Your task to perform on an android device: What is the recent news? Image 0: 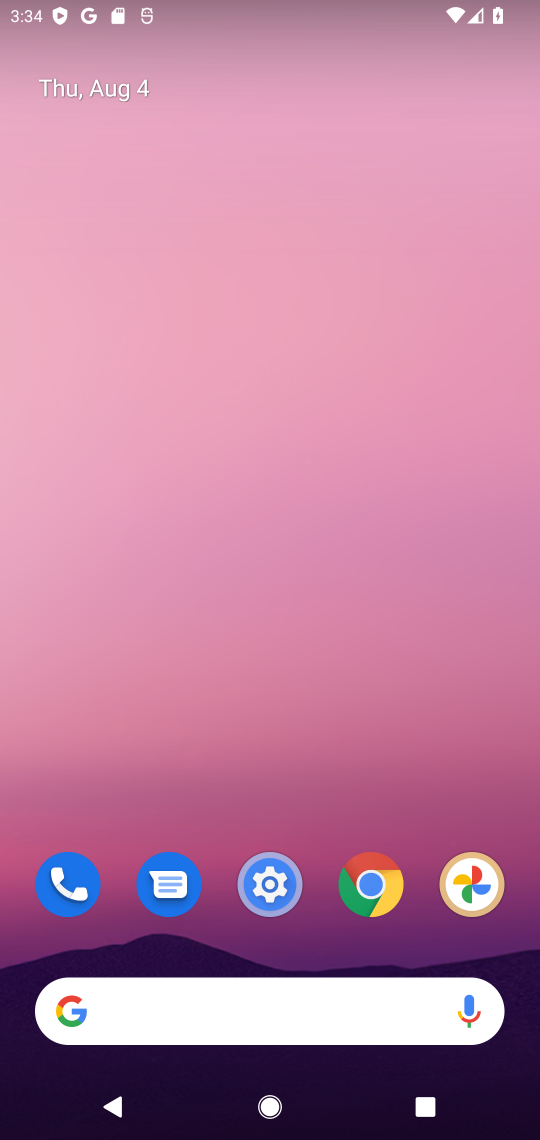
Step 0: drag from (192, 936) to (220, 296)
Your task to perform on an android device: What is the recent news? Image 1: 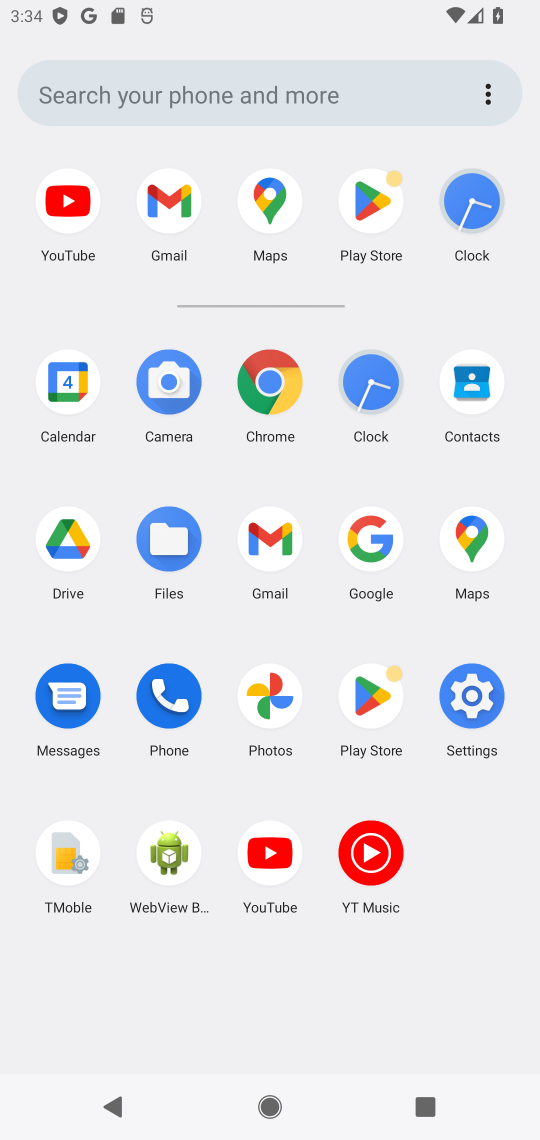
Step 1: click (227, 93)
Your task to perform on an android device: What is the recent news? Image 2: 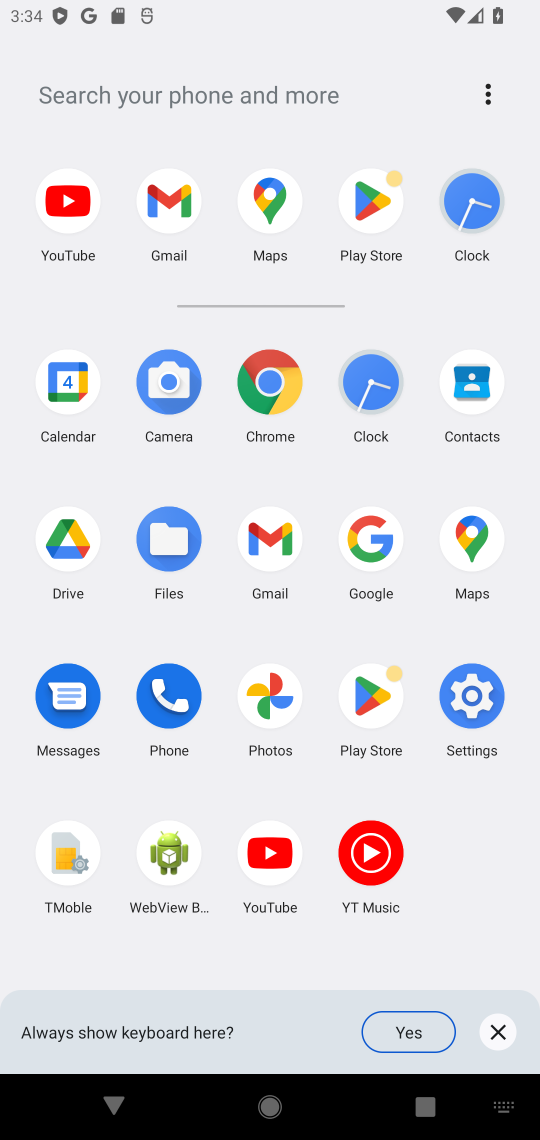
Step 2: type " recent news?"
Your task to perform on an android device: What is the recent news? Image 3: 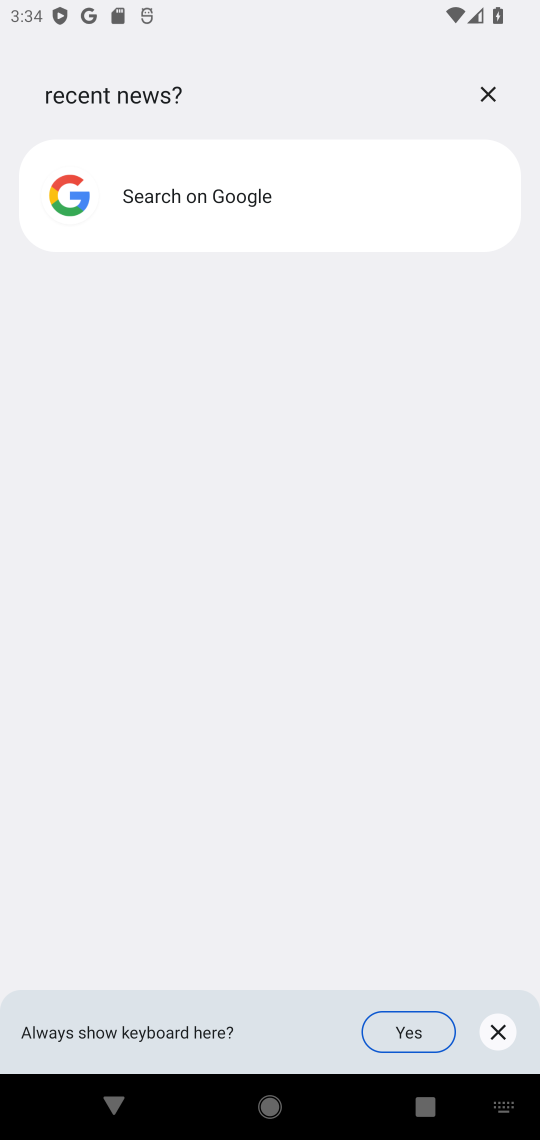
Step 3: click (113, 171)
Your task to perform on an android device: What is the recent news? Image 4: 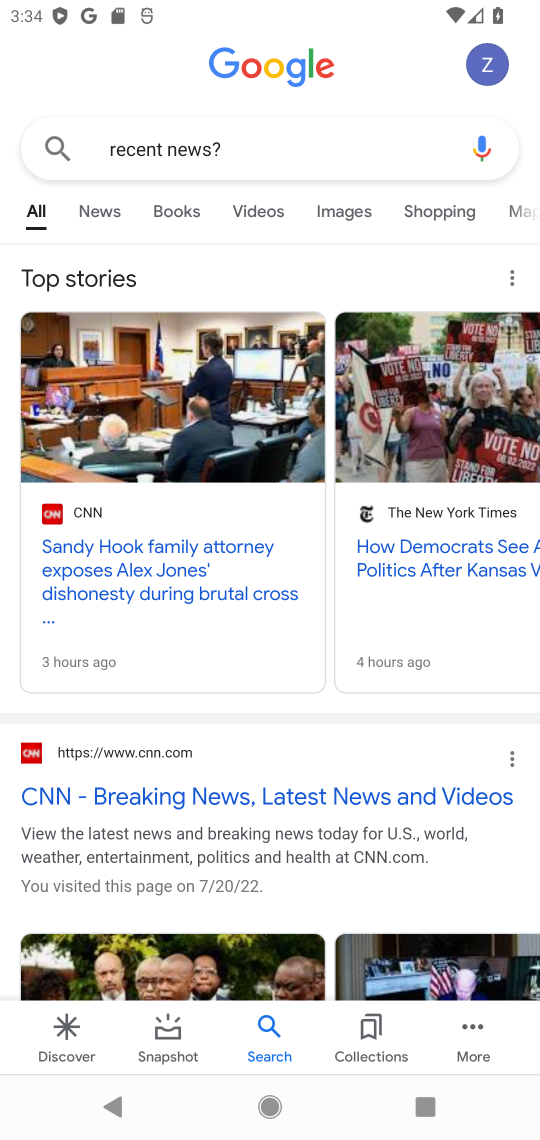
Step 4: drag from (206, 790) to (270, 355)
Your task to perform on an android device: What is the recent news? Image 5: 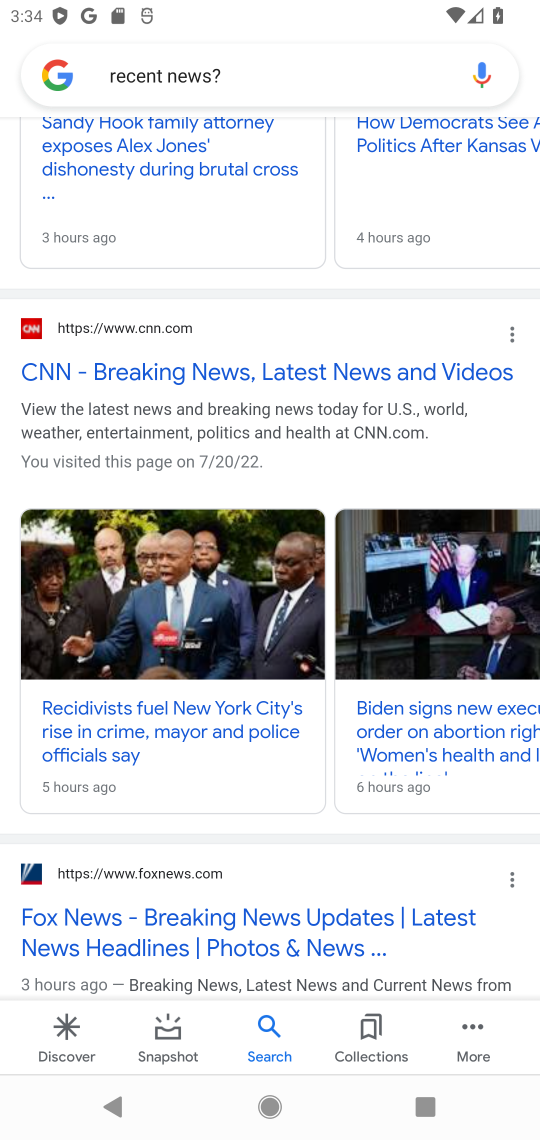
Step 5: drag from (282, 887) to (320, 510)
Your task to perform on an android device: What is the recent news? Image 6: 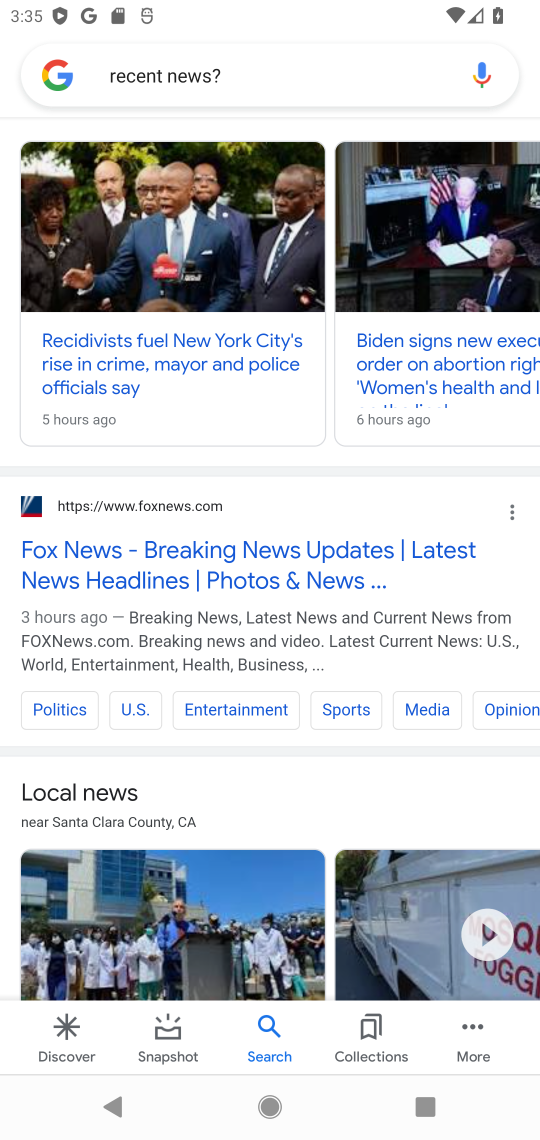
Step 6: drag from (314, 465) to (396, 1128)
Your task to perform on an android device: What is the recent news? Image 7: 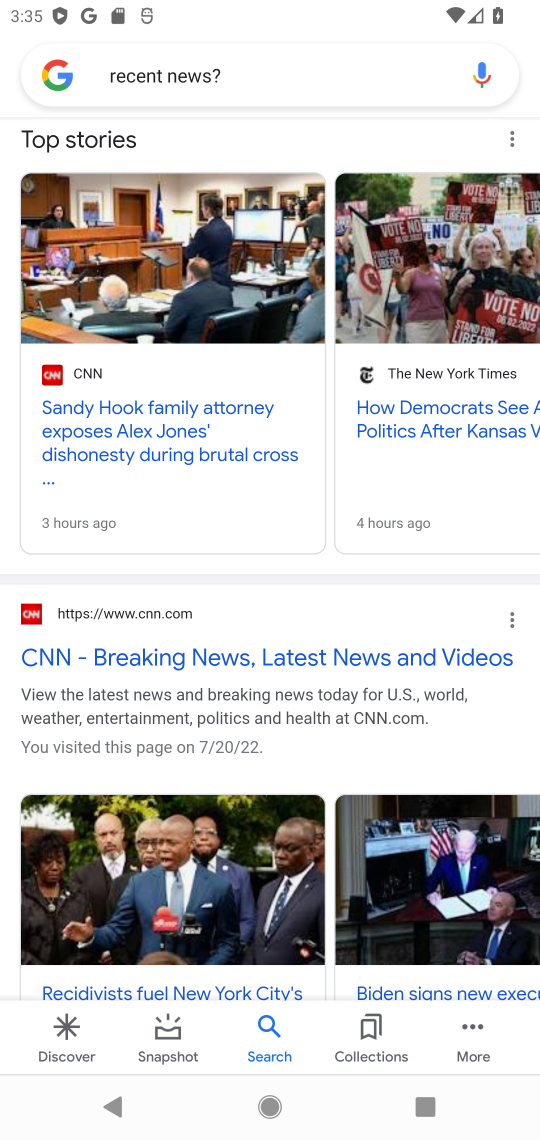
Step 7: drag from (229, 395) to (484, 70)
Your task to perform on an android device: What is the recent news? Image 8: 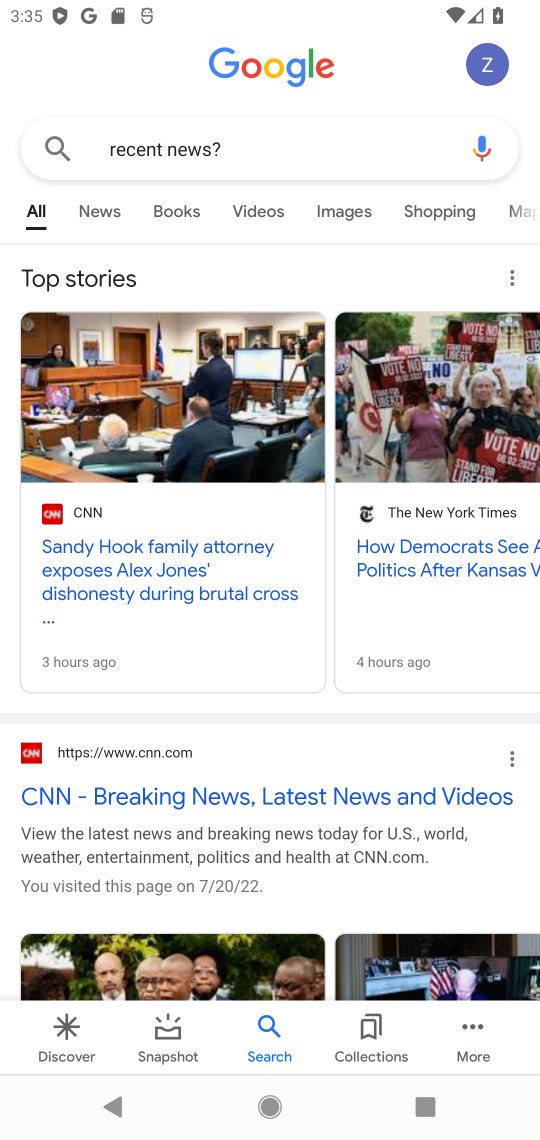
Step 8: drag from (293, 720) to (309, 297)
Your task to perform on an android device: What is the recent news? Image 9: 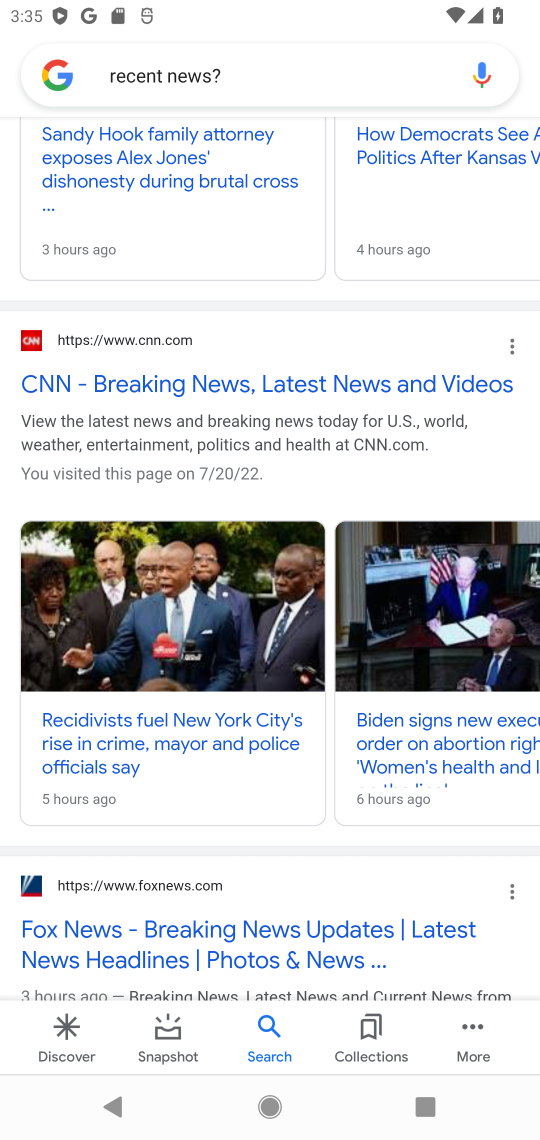
Step 9: drag from (282, 871) to (352, 505)
Your task to perform on an android device: What is the recent news? Image 10: 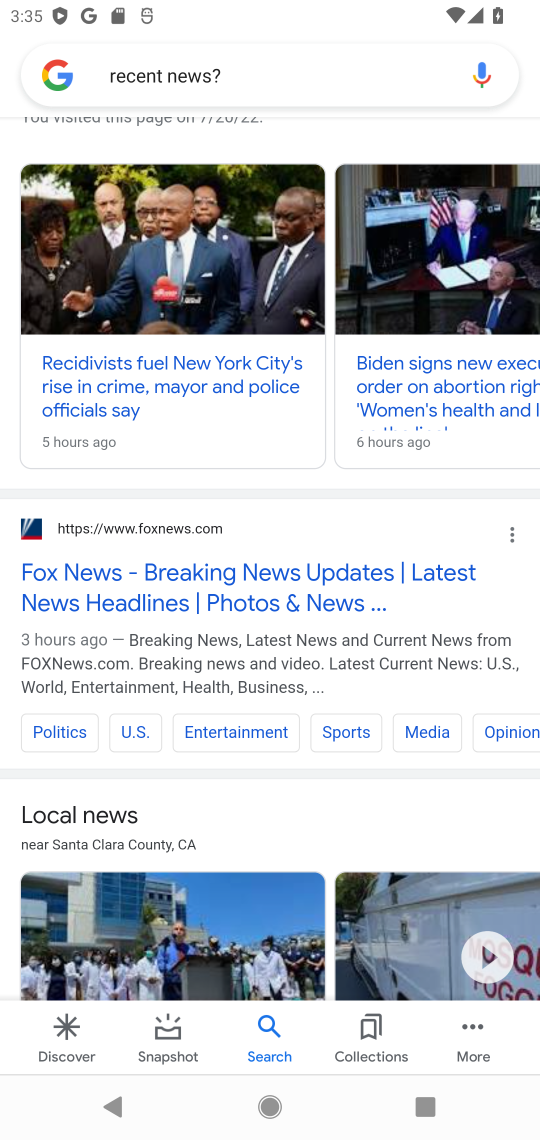
Step 10: drag from (281, 806) to (320, 362)
Your task to perform on an android device: What is the recent news? Image 11: 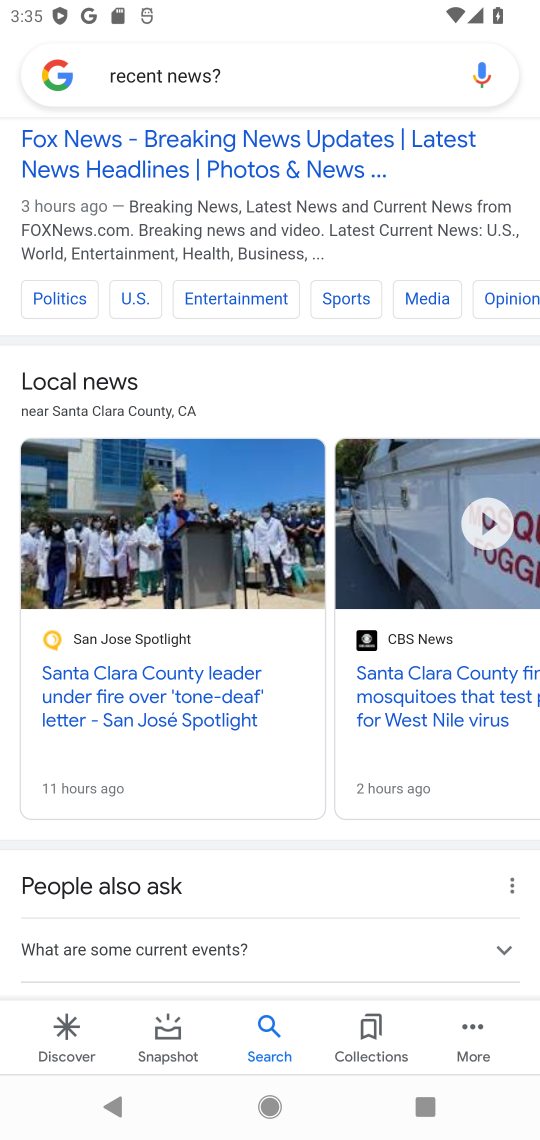
Step 11: drag from (269, 905) to (321, 565)
Your task to perform on an android device: What is the recent news? Image 12: 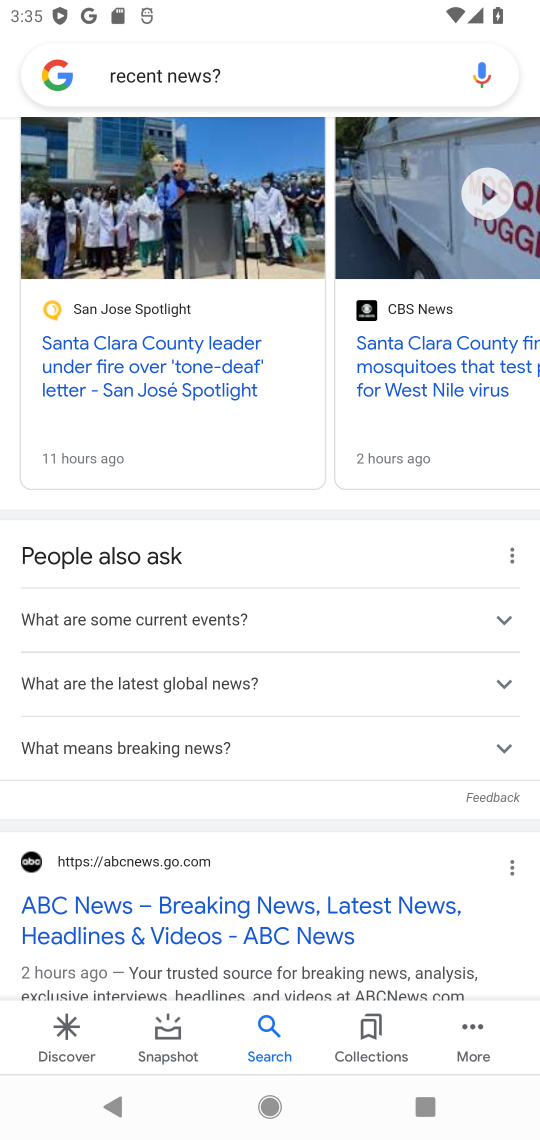
Step 12: drag from (257, 855) to (333, 213)
Your task to perform on an android device: What is the recent news? Image 13: 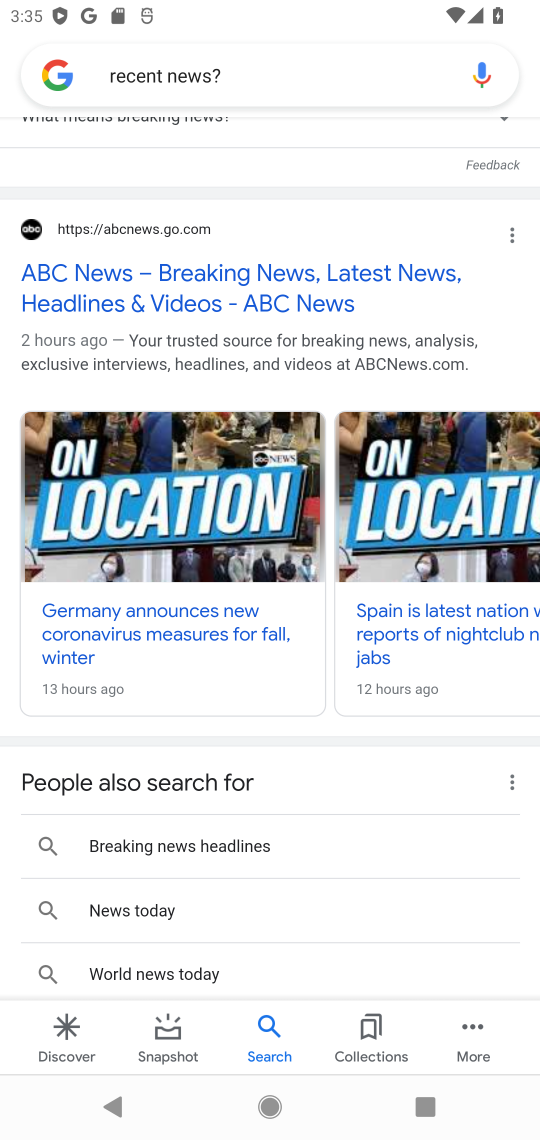
Step 13: drag from (298, 878) to (364, 352)
Your task to perform on an android device: What is the recent news? Image 14: 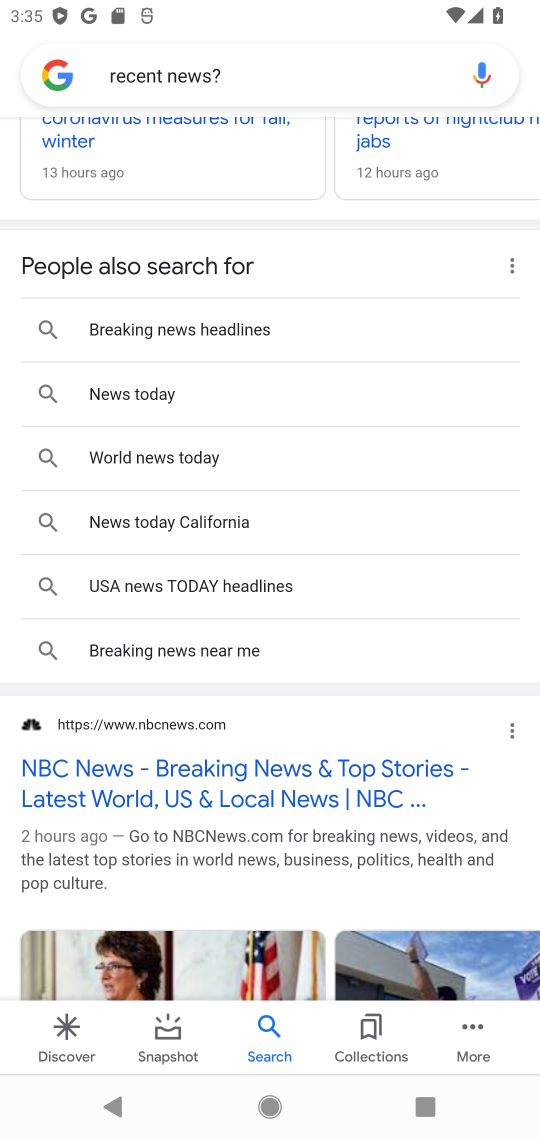
Step 14: drag from (335, 318) to (353, 1081)
Your task to perform on an android device: What is the recent news? Image 15: 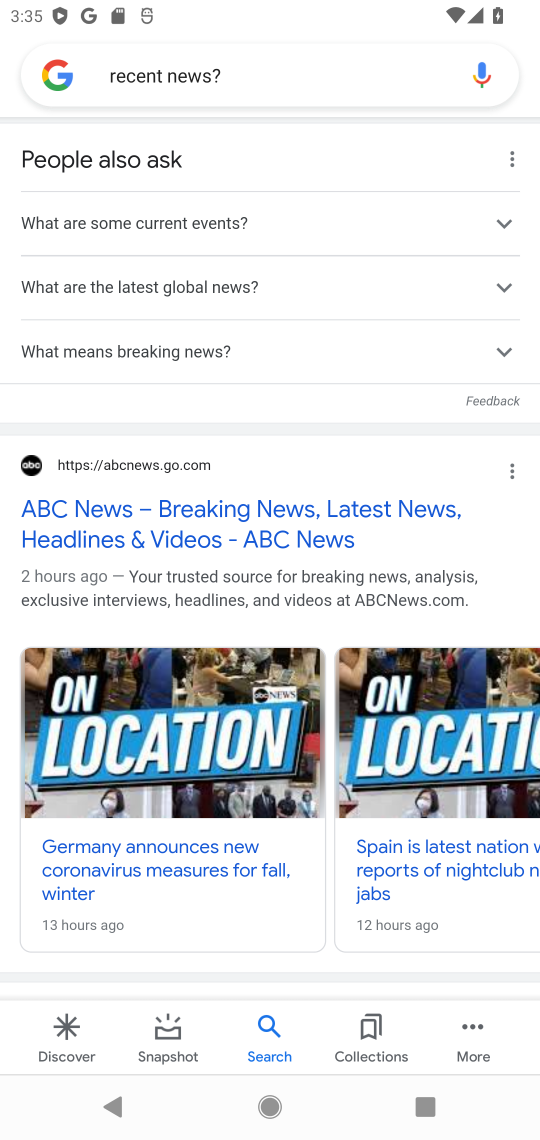
Step 15: drag from (298, 615) to (526, 970)
Your task to perform on an android device: What is the recent news? Image 16: 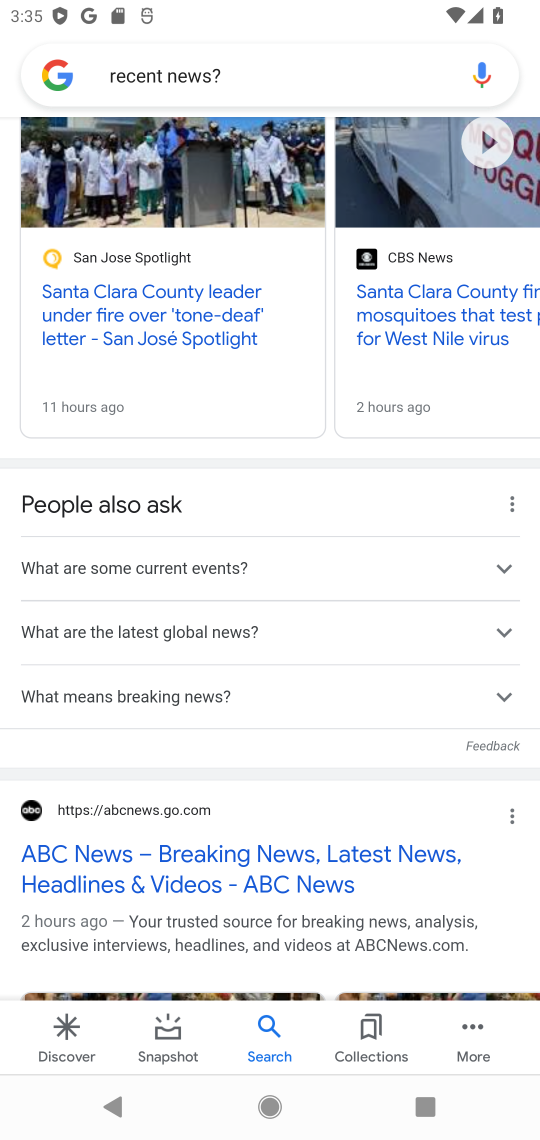
Step 16: drag from (279, 328) to (384, 1124)
Your task to perform on an android device: What is the recent news? Image 17: 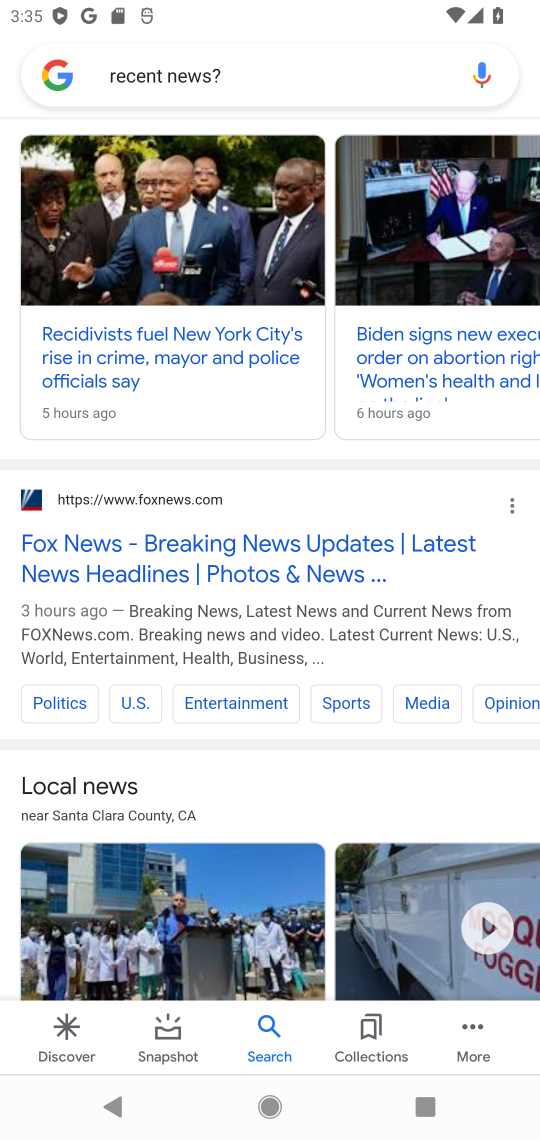
Step 17: drag from (255, 489) to (434, 1133)
Your task to perform on an android device: What is the recent news? Image 18: 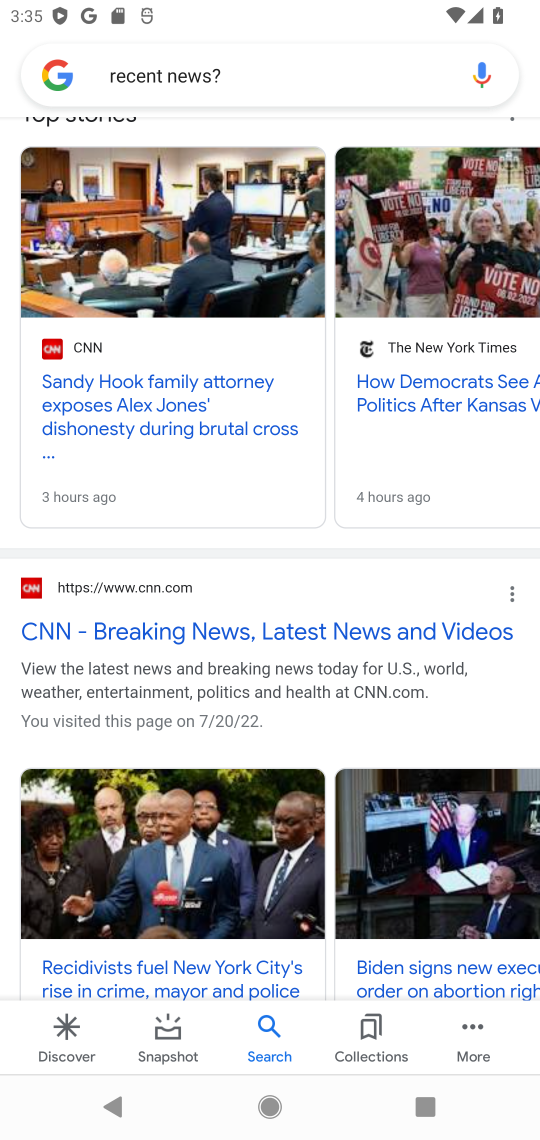
Step 18: drag from (231, 633) to (460, 1134)
Your task to perform on an android device: What is the recent news? Image 19: 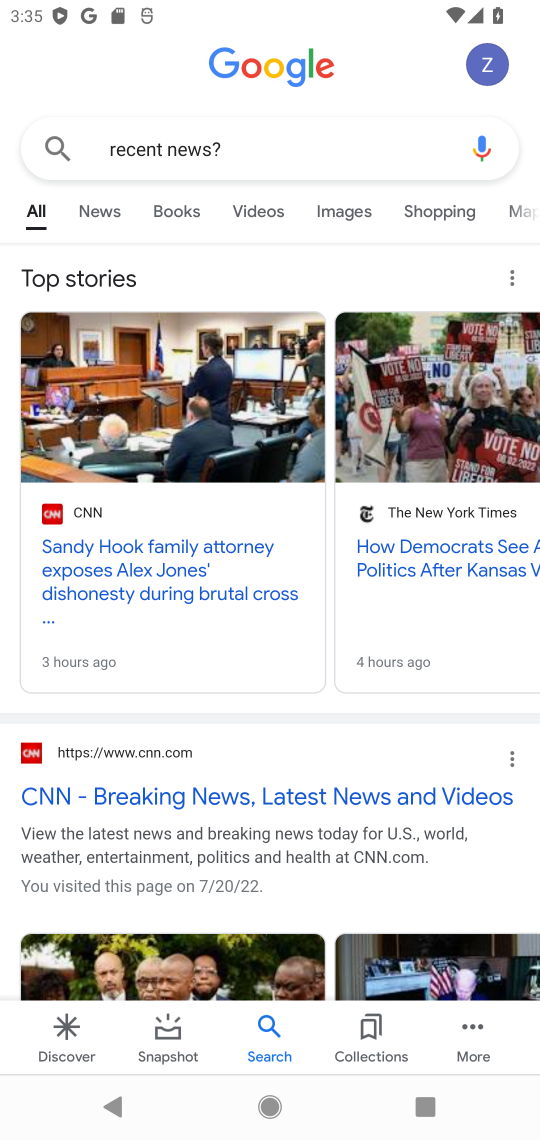
Step 19: drag from (249, 906) to (358, 354)
Your task to perform on an android device: What is the recent news? Image 20: 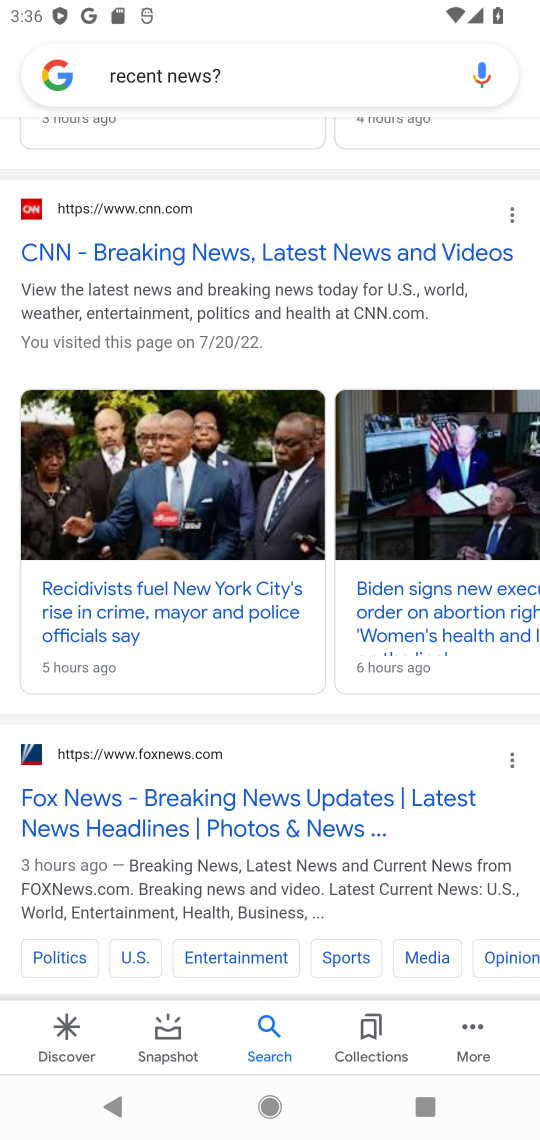
Step 20: click (193, 250)
Your task to perform on an android device: What is the recent news? Image 21: 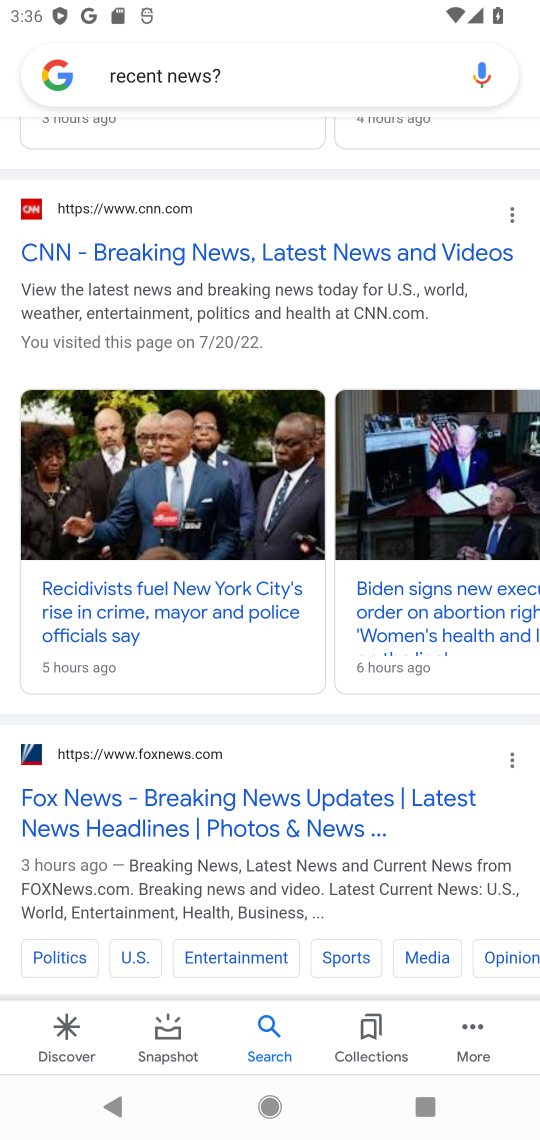
Step 21: task complete